Your task to perform on an android device: clear all cookies in the chrome app Image 0: 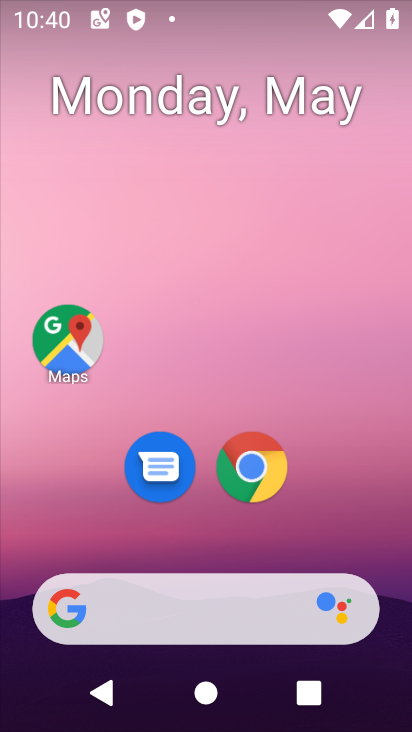
Step 0: click (246, 466)
Your task to perform on an android device: clear all cookies in the chrome app Image 1: 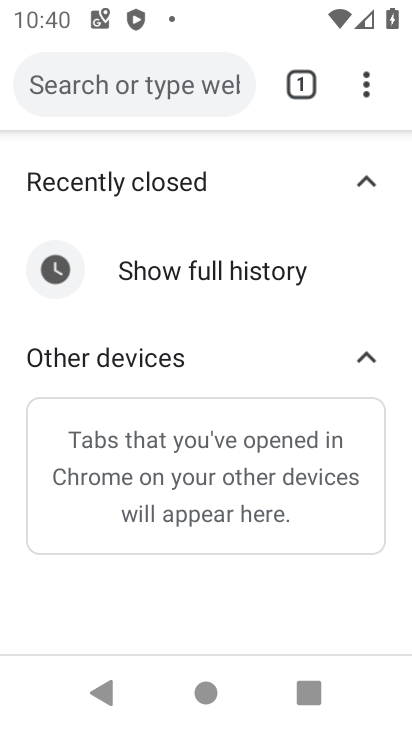
Step 1: click (365, 93)
Your task to perform on an android device: clear all cookies in the chrome app Image 2: 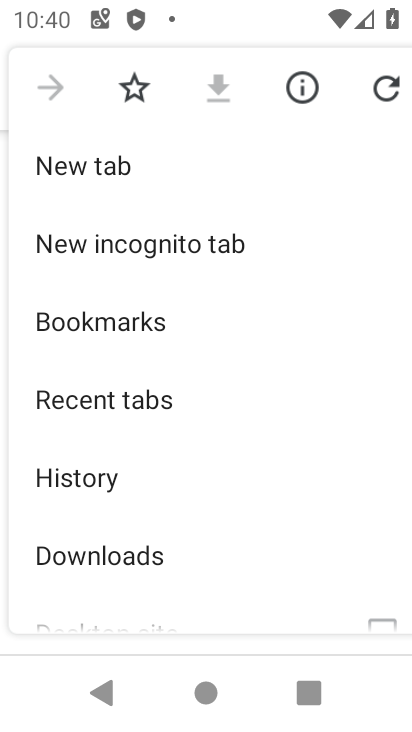
Step 2: click (83, 470)
Your task to perform on an android device: clear all cookies in the chrome app Image 3: 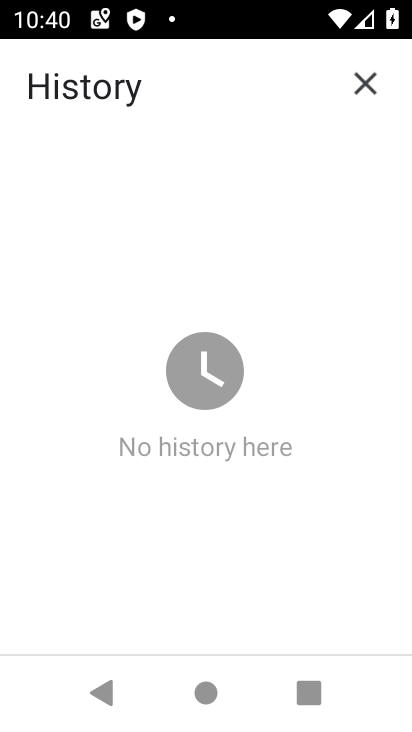
Step 3: task complete